Your task to perform on an android device: read, delete, or share a saved page in the chrome app Image 0: 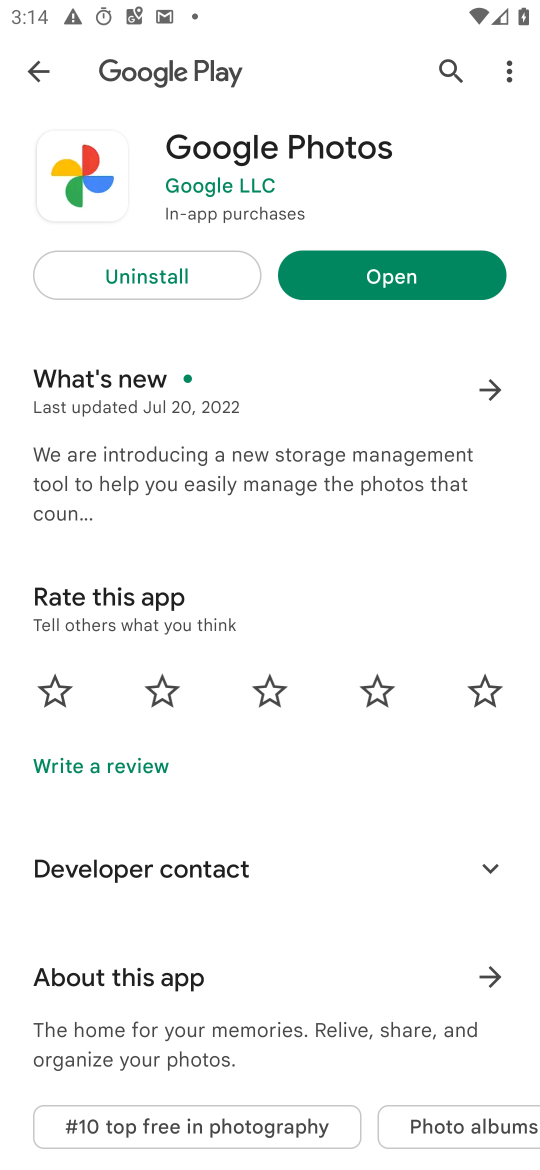
Step 0: press home button
Your task to perform on an android device: read, delete, or share a saved page in the chrome app Image 1: 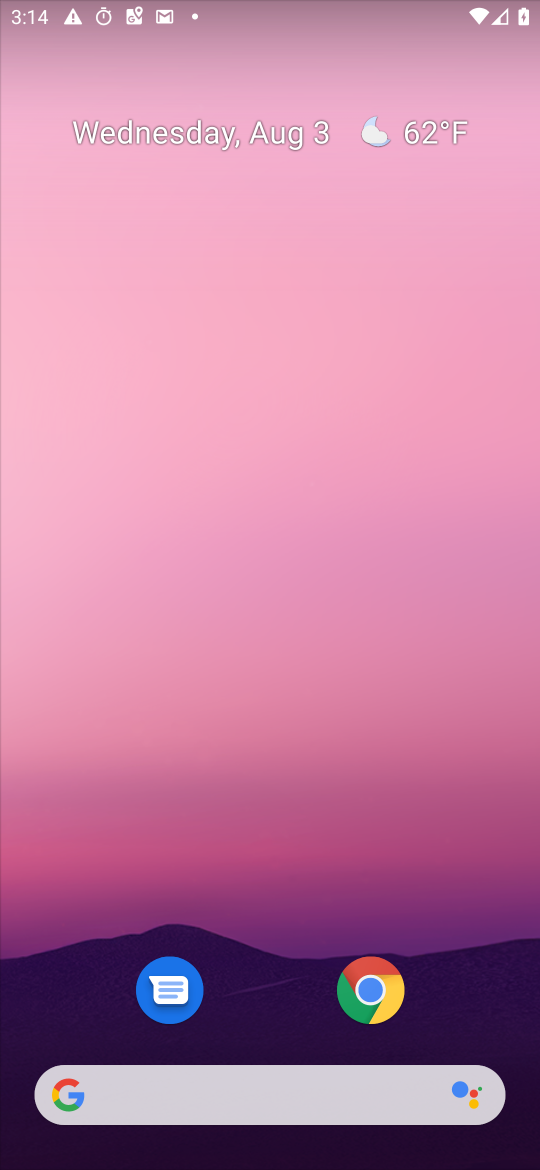
Step 1: click (388, 994)
Your task to perform on an android device: read, delete, or share a saved page in the chrome app Image 2: 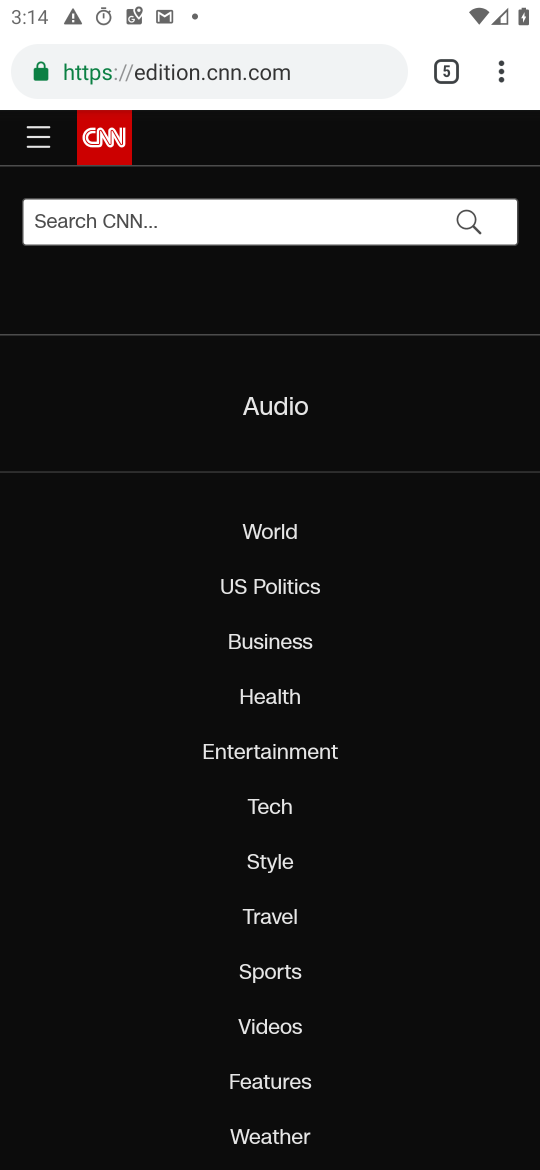
Step 2: click (503, 70)
Your task to perform on an android device: read, delete, or share a saved page in the chrome app Image 3: 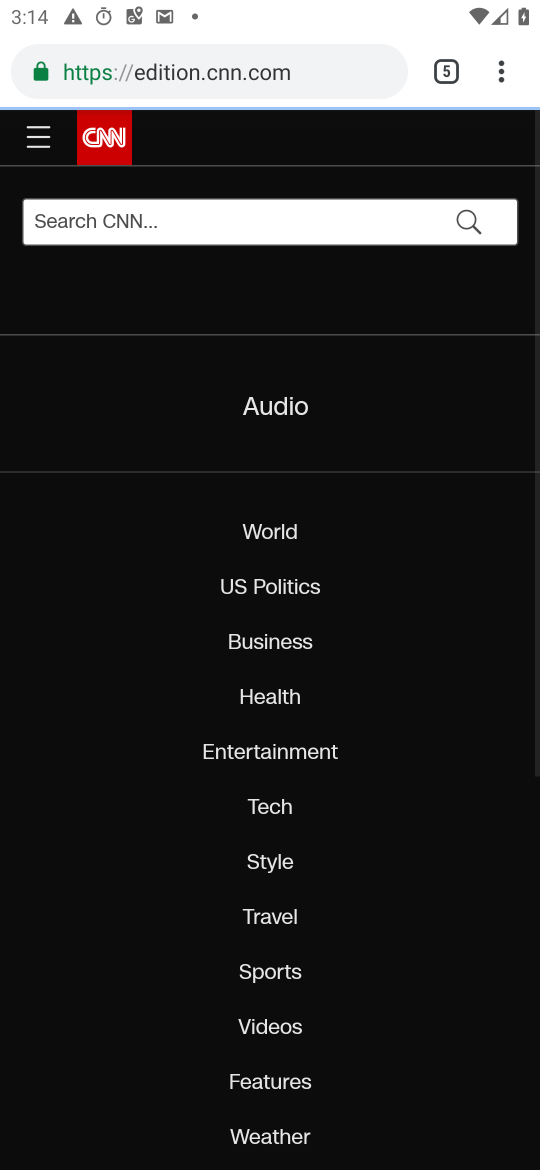
Step 3: click (492, 56)
Your task to perform on an android device: read, delete, or share a saved page in the chrome app Image 4: 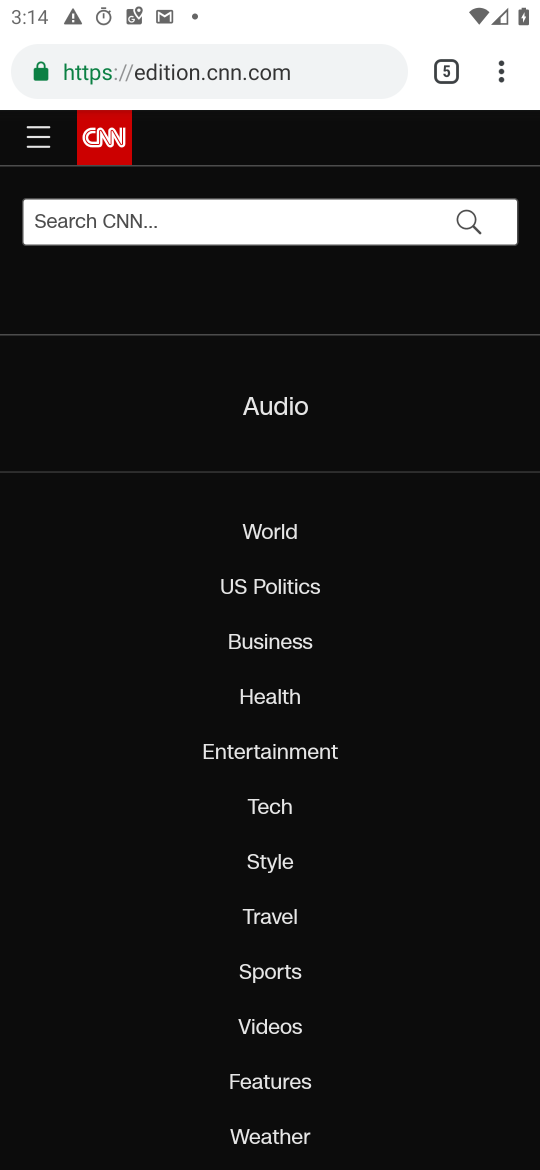
Step 4: click (507, 68)
Your task to perform on an android device: read, delete, or share a saved page in the chrome app Image 5: 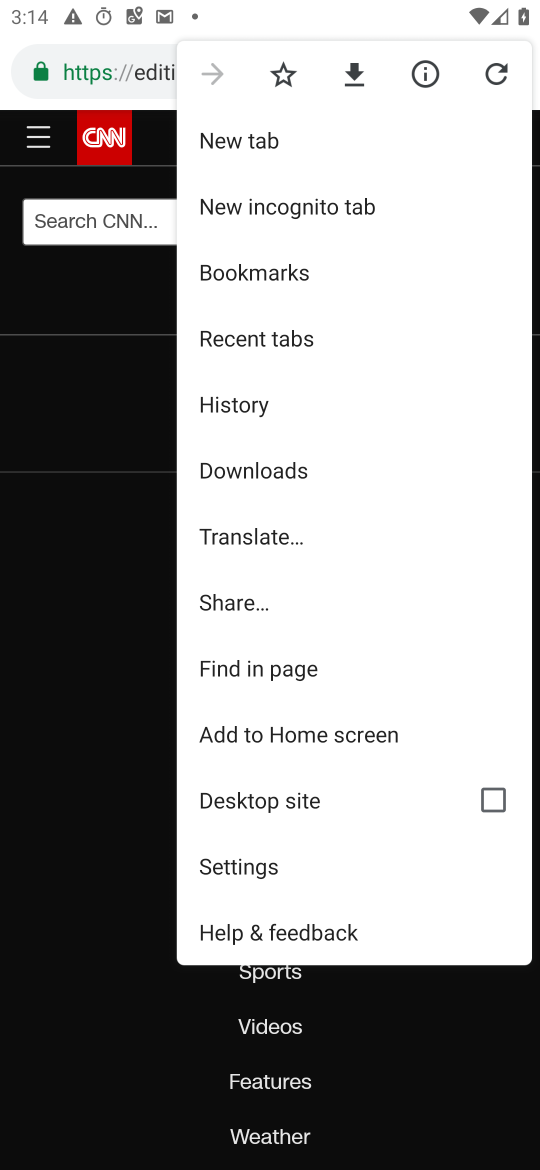
Step 5: click (249, 479)
Your task to perform on an android device: read, delete, or share a saved page in the chrome app Image 6: 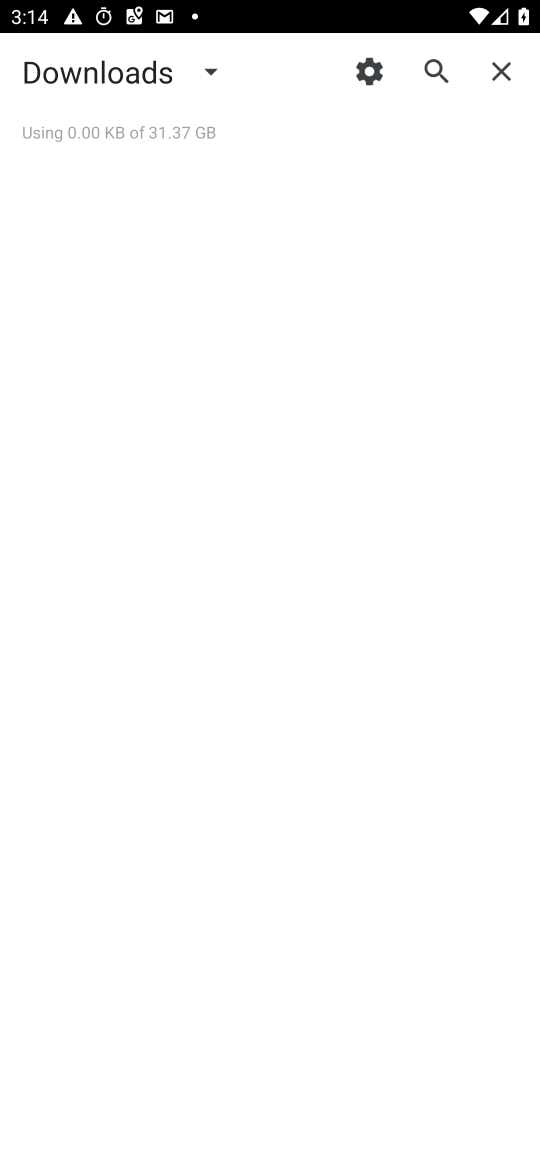
Step 6: click (198, 95)
Your task to perform on an android device: read, delete, or share a saved page in the chrome app Image 7: 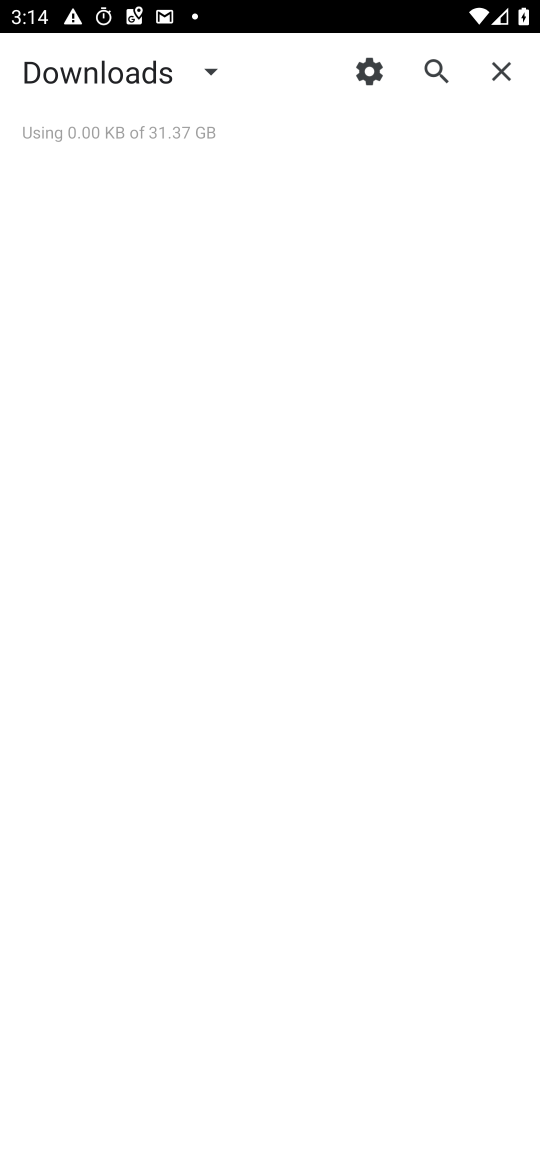
Step 7: click (212, 71)
Your task to perform on an android device: read, delete, or share a saved page in the chrome app Image 8: 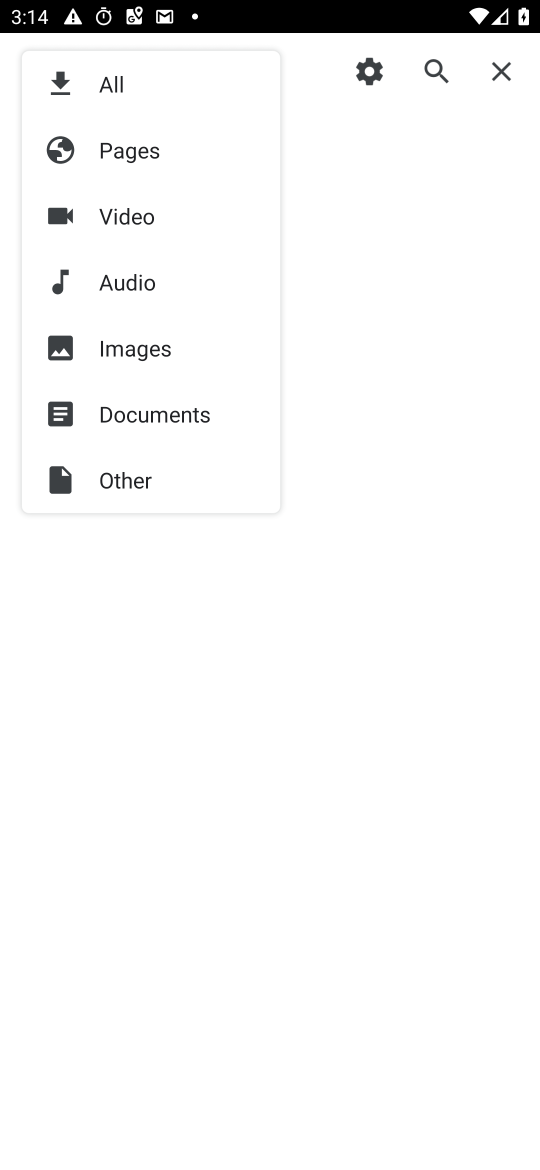
Step 8: click (127, 154)
Your task to perform on an android device: read, delete, or share a saved page in the chrome app Image 9: 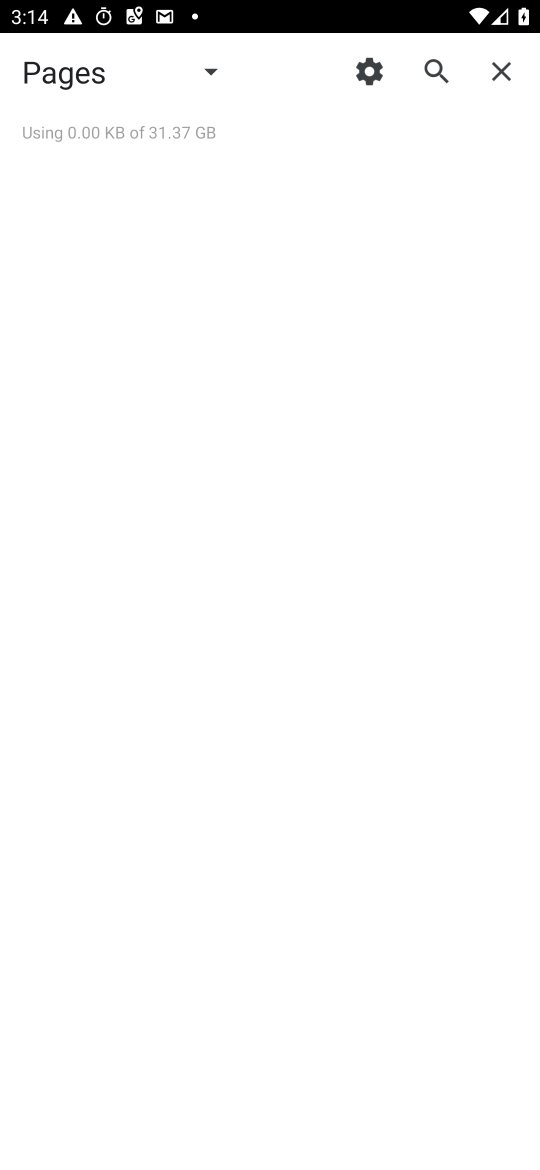
Step 9: task complete